Your task to perform on an android device: See recent photos Image 0: 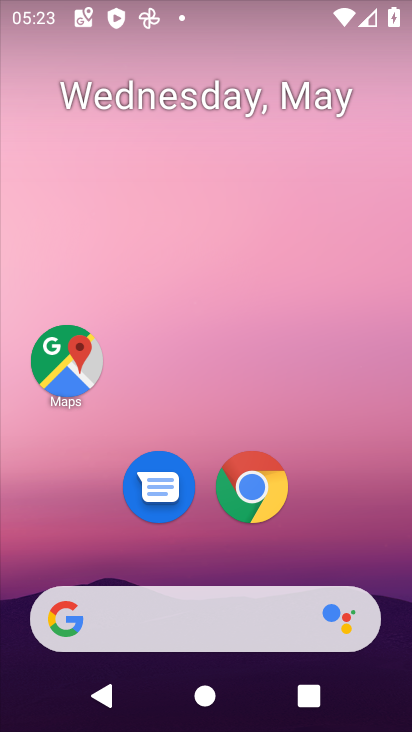
Step 0: drag from (343, 547) to (308, 274)
Your task to perform on an android device: See recent photos Image 1: 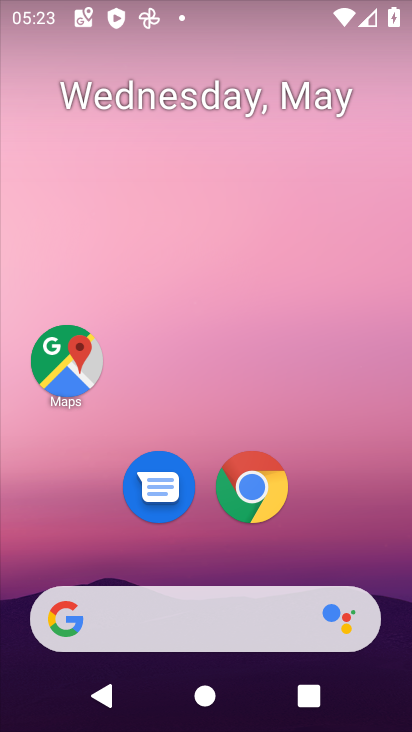
Step 1: drag from (333, 533) to (331, 220)
Your task to perform on an android device: See recent photos Image 2: 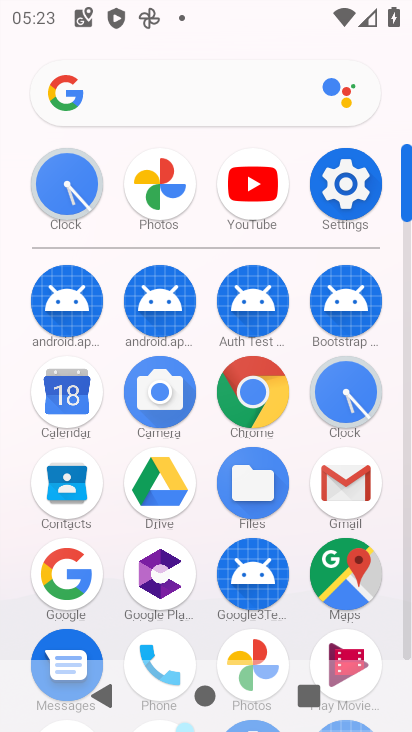
Step 2: click (162, 189)
Your task to perform on an android device: See recent photos Image 3: 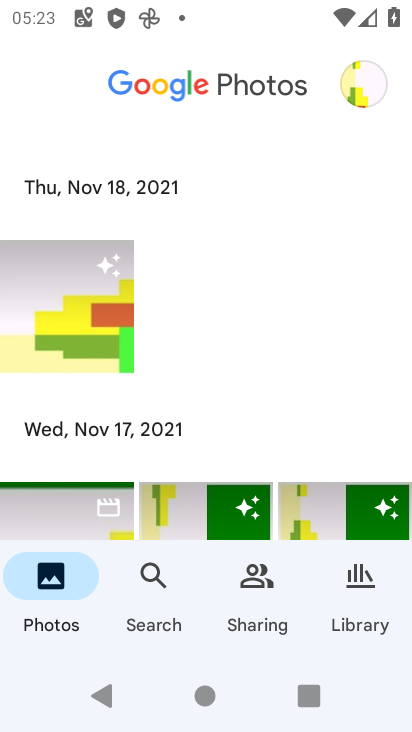
Step 3: click (358, 574)
Your task to perform on an android device: See recent photos Image 4: 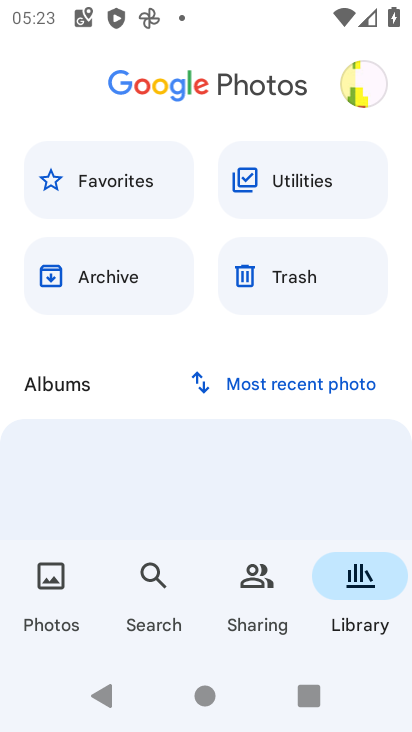
Step 4: click (120, 281)
Your task to perform on an android device: See recent photos Image 5: 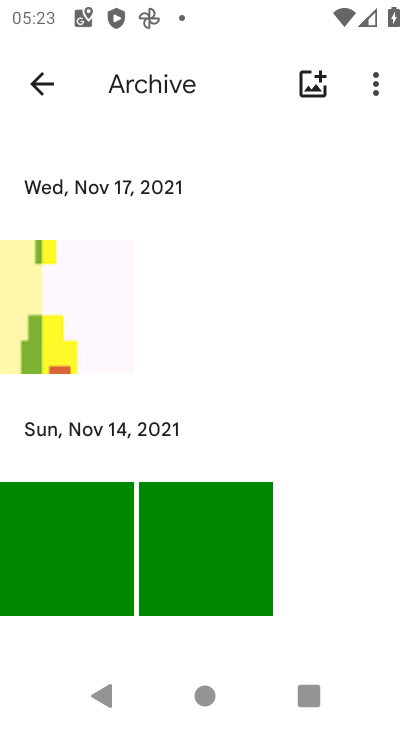
Step 5: task complete